Your task to perform on an android device: change alarm snooze length Image 0: 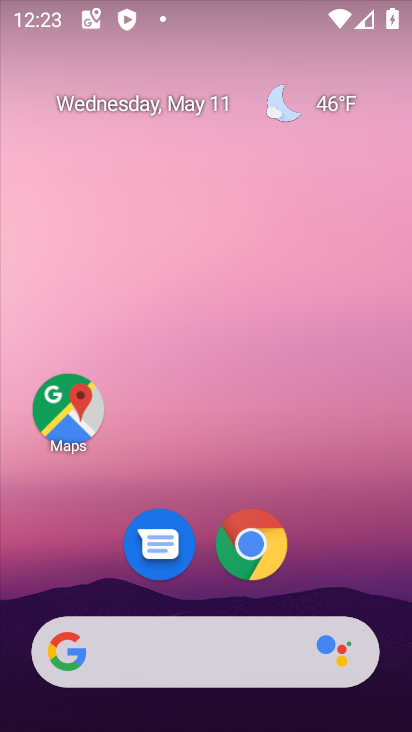
Step 0: drag from (402, 649) to (316, 86)
Your task to perform on an android device: change alarm snooze length Image 1: 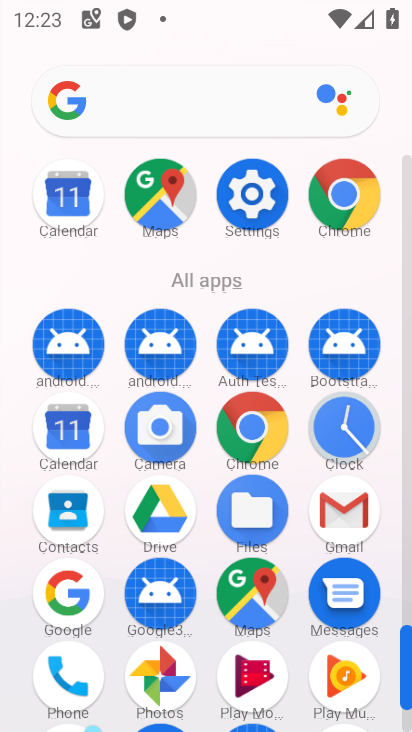
Step 1: click (408, 616)
Your task to perform on an android device: change alarm snooze length Image 2: 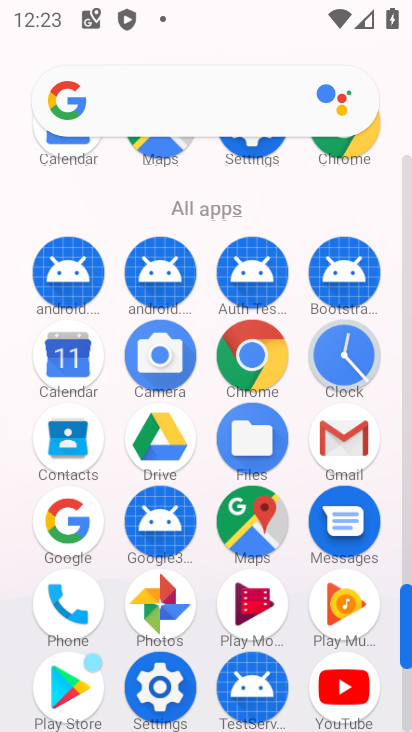
Step 2: click (344, 357)
Your task to perform on an android device: change alarm snooze length Image 3: 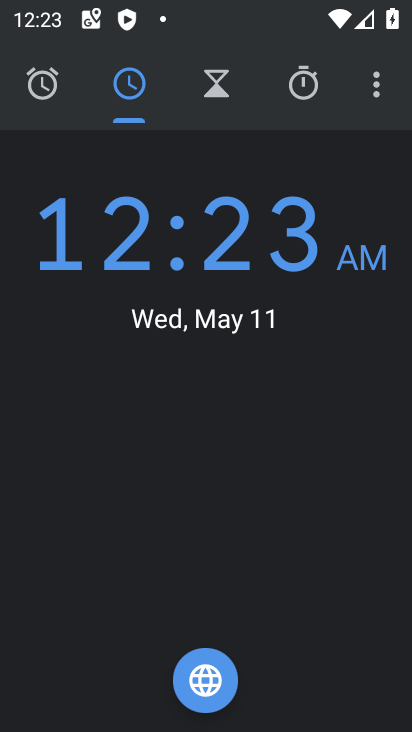
Step 3: click (374, 88)
Your task to perform on an android device: change alarm snooze length Image 4: 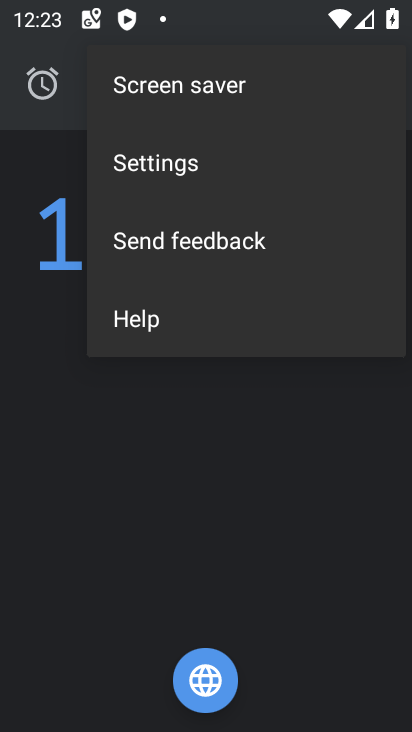
Step 4: click (151, 161)
Your task to perform on an android device: change alarm snooze length Image 5: 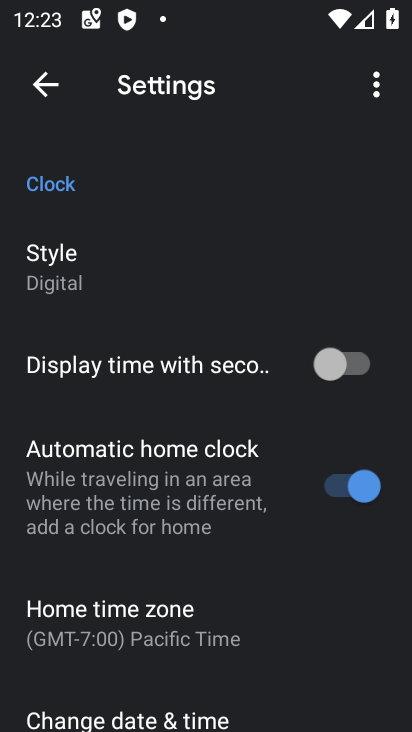
Step 5: drag from (282, 610) to (253, 158)
Your task to perform on an android device: change alarm snooze length Image 6: 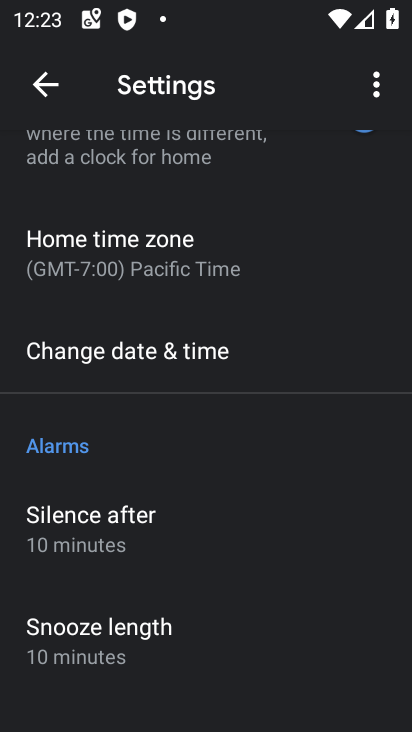
Step 6: click (87, 643)
Your task to perform on an android device: change alarm snooze length Image 7: 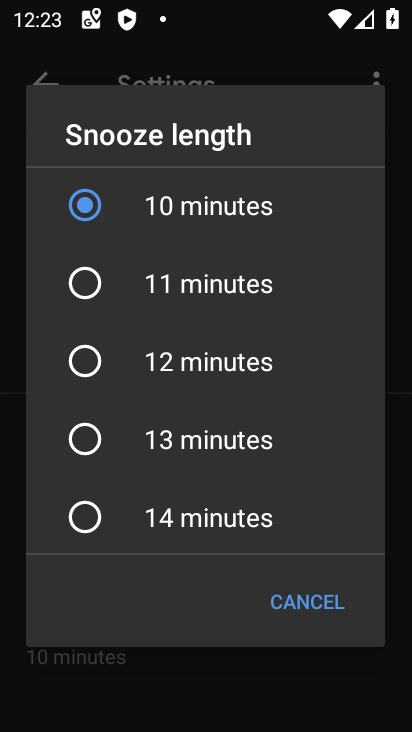
Step 7: click (84, 510)
Your task to perform on an android device: change alarm snooze length Image 8: 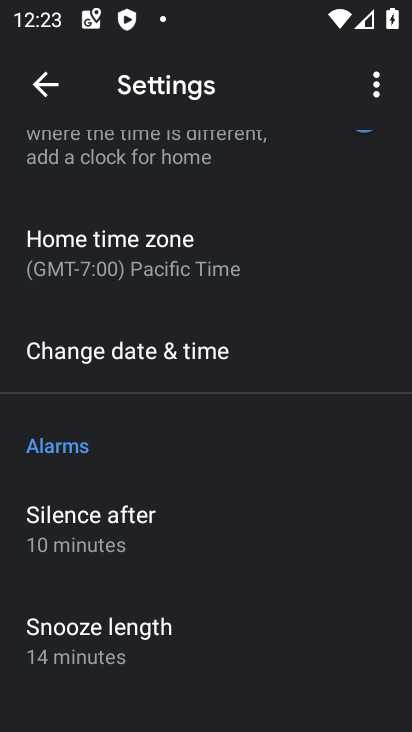
Step 8: task complete